Your task to perform on an android device: toggle wifi Image 0: 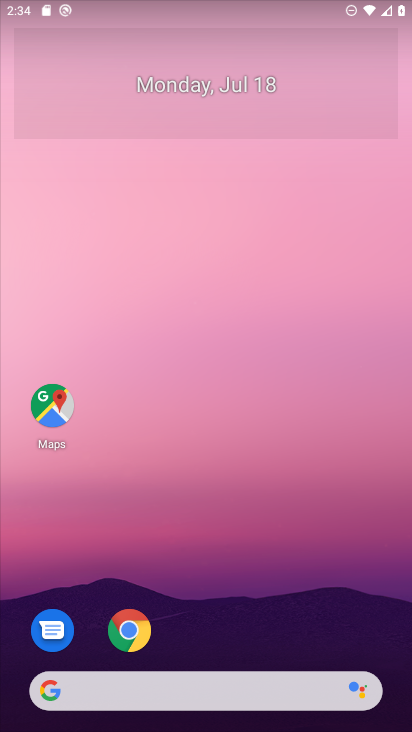
Step 0: press home button
Your task to perform on an android device: toggle wifi Image 1: 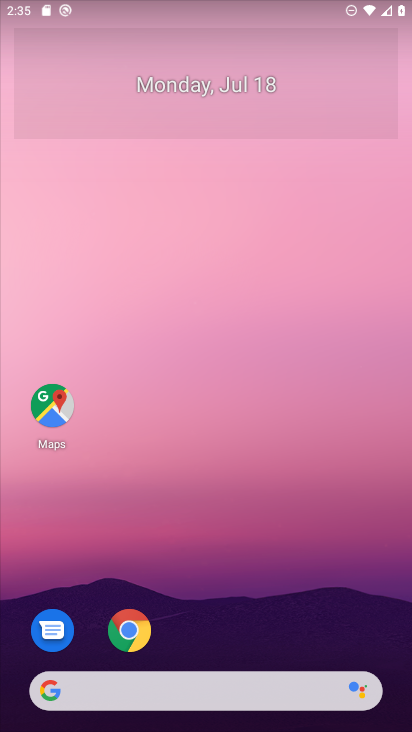
Step 1: drag from (210, 49) to (231, 406)
Your task to perform on an android device: toggle wifi Image 2: 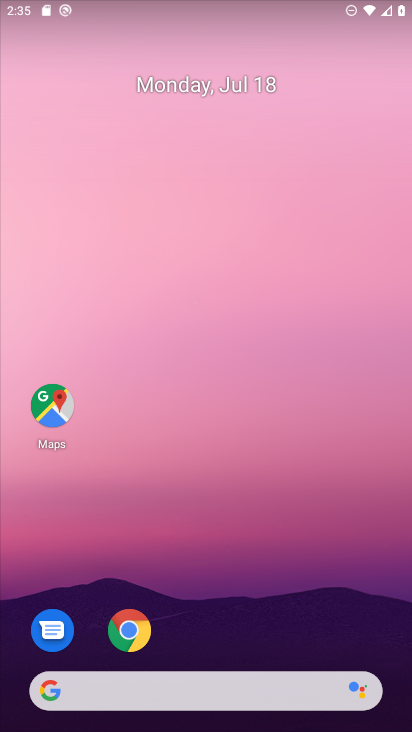
Step 2: drag from (177, 48) to (172, 417)
Your task to perform on an android device: toggle wifi Image 3: 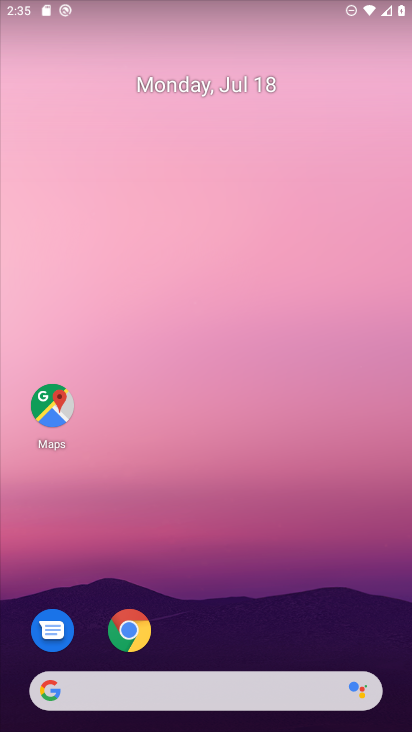
Step 3: drag from (190, 0) to (130, 646)
Your task to perform on an android device: toggle wifi Image 4: 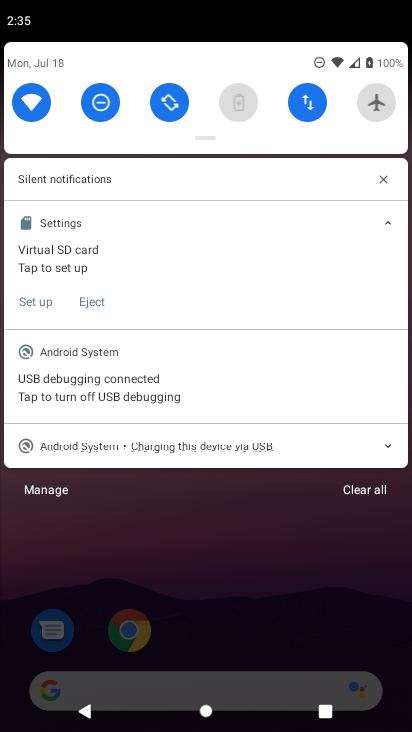
Step 4: click (39, 101)
Your task to perform on an android device: toggle wifi Image 5: 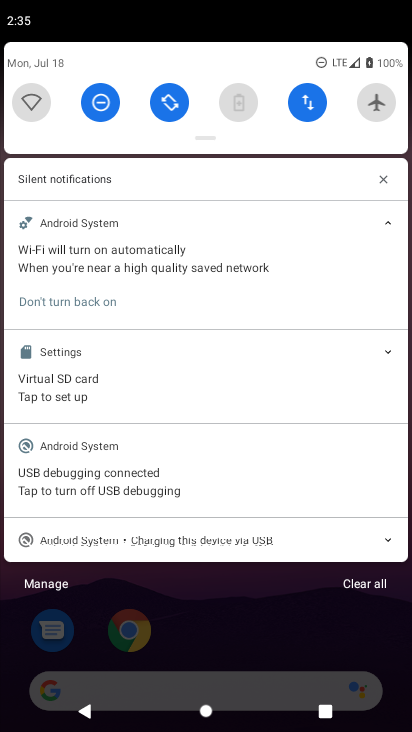
Step 5: task complete